Your task to perform on an android device: manage bookmarks in the chrome app Image 0: 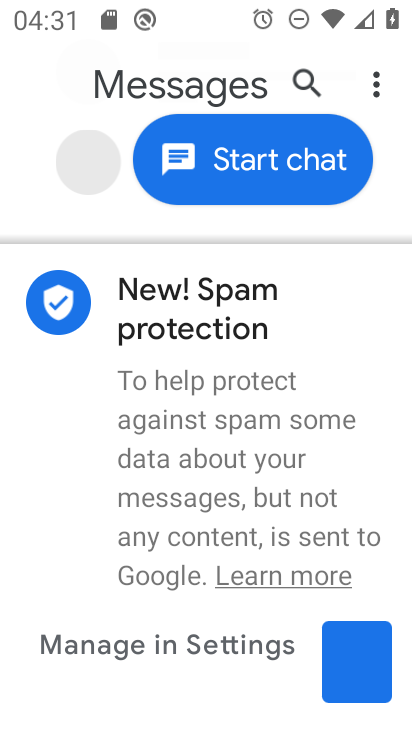
Step 0: press home button
Your task to perform on an android device: manage bookmarks in the chrome app Image 1: 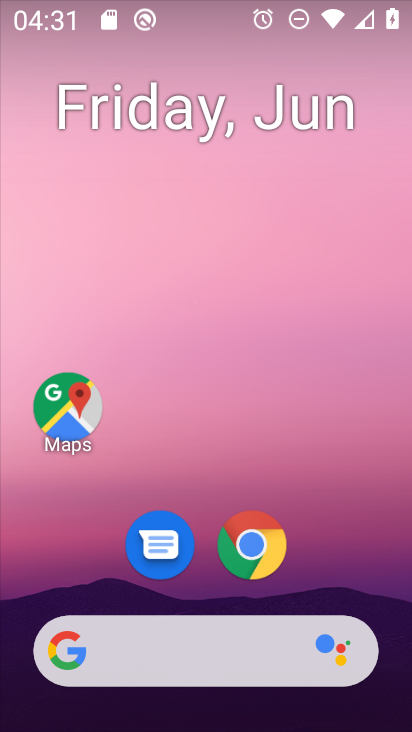
Step 1: click (254, 547)
Your task to perform on an android device: manage bookmarks in the chrome app Image 2: 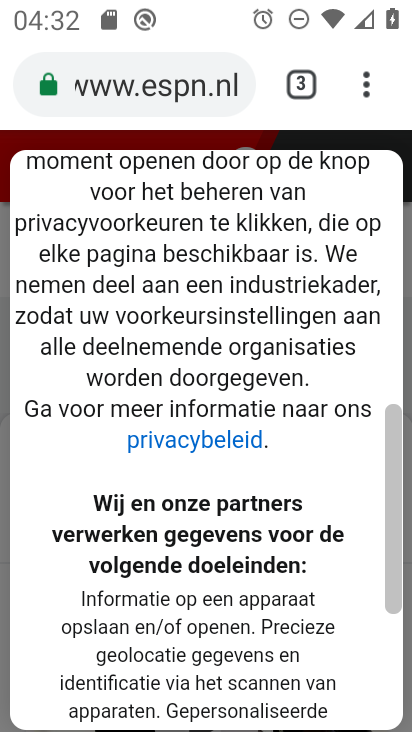
Step 2: click (359, 78)
Your task to perform on an android device: manage bookmarks in the chrome app Image 3: 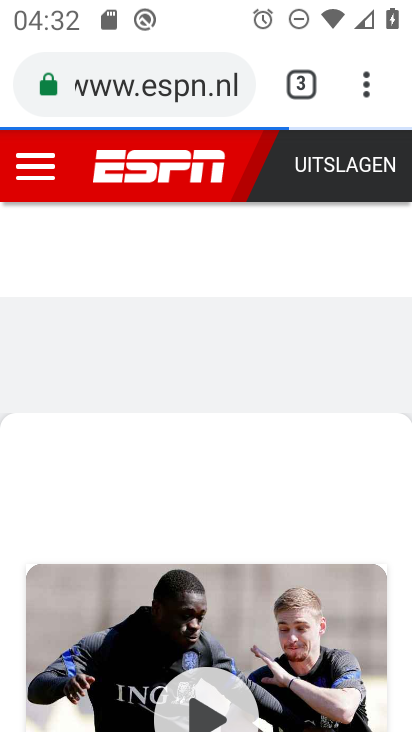
Step 3: click (360, 79)
Your task to perform on an android device: manage bookmarks in the chrome app Image 4: 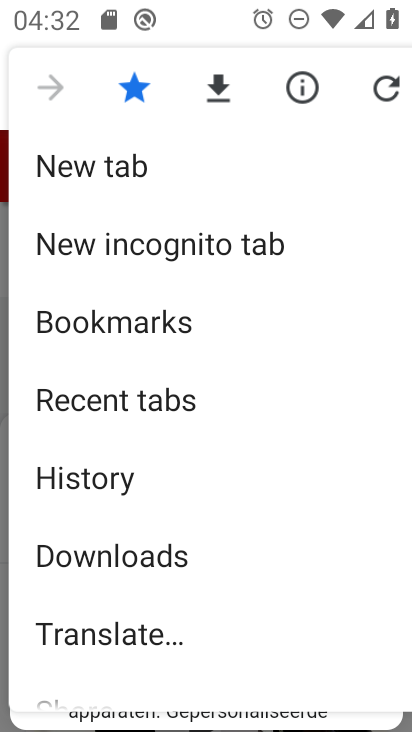
Step 4: click (177, 317)
Your task to perform on an android device: manage bookmarks in the chrome app Image 5: 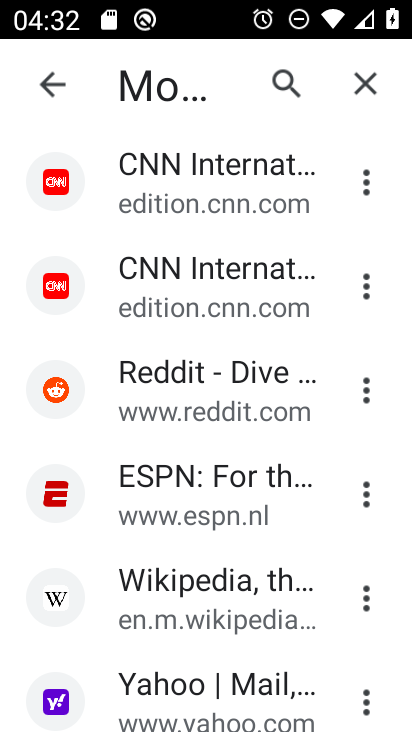
Step 5: click (366, 176)
Your task to perform on an android device: manage bookmarks in the chrome app Image 6: 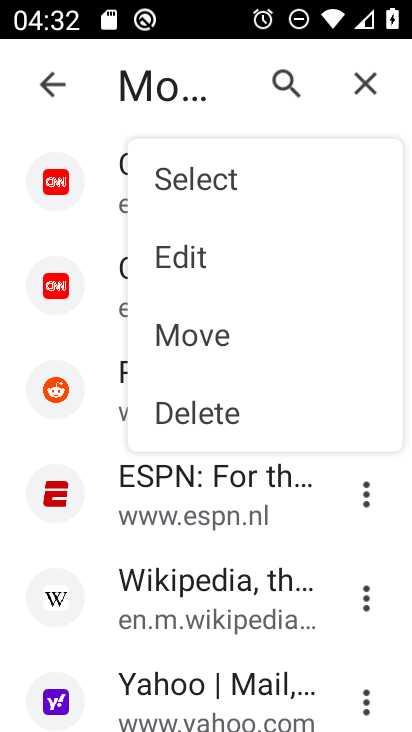
Step 6: click (180, 419)
Your task to perform on an android device: manage bookmarks in the chrome app Image 7: 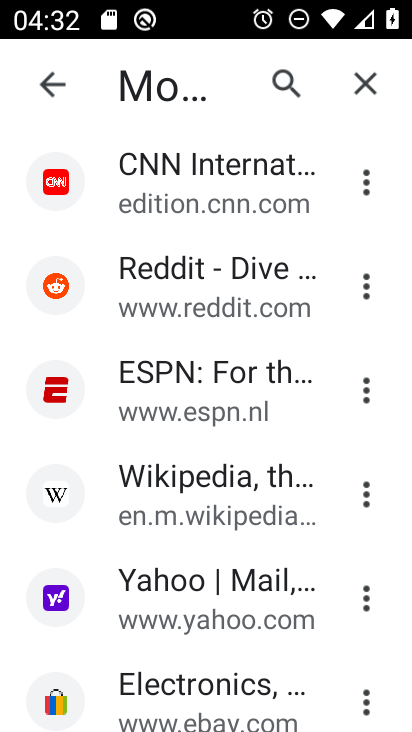
Step 7: task complete